Your task to perform on an android device: Open maps Image 0: 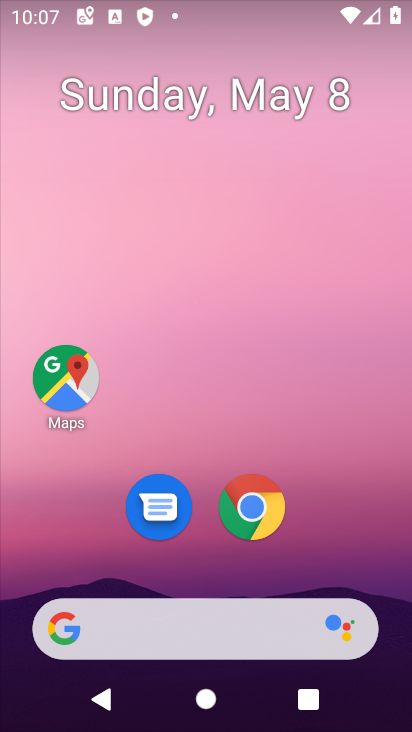
Step 0: click (59, 412)
Your task to perform on an android device: Open maps Image 1: 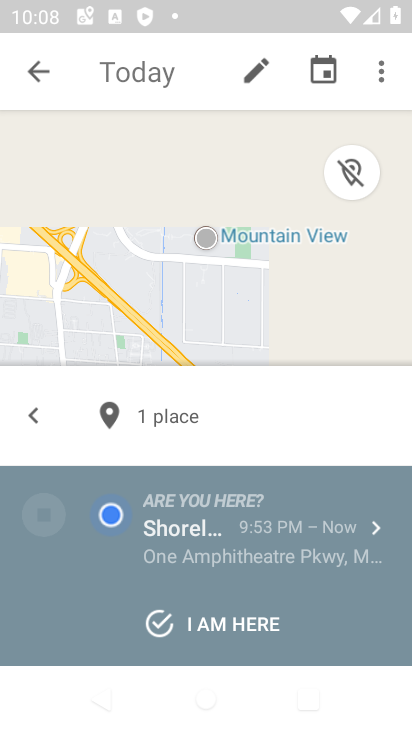
Step 1: task complete